Your task to perform on an android device: move an email to a new category in the gmail app Image 0: 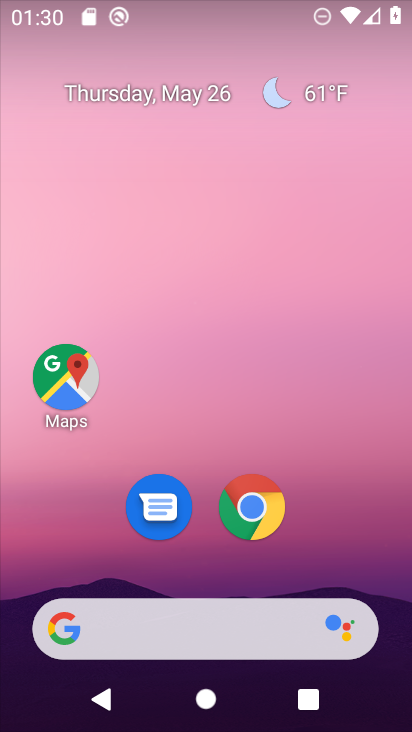
Step 0: drag from (353, 550) to (303, 5)
Your task to perform on an android device: move an email to a new category in the gmail app Image 1: 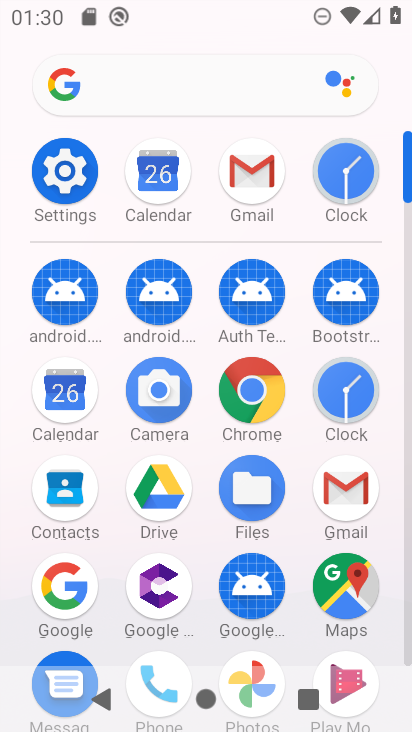
Step 1: click (272, 170)
Your task to perform on an android device: move an email to a new category in the gmail app Image 2: 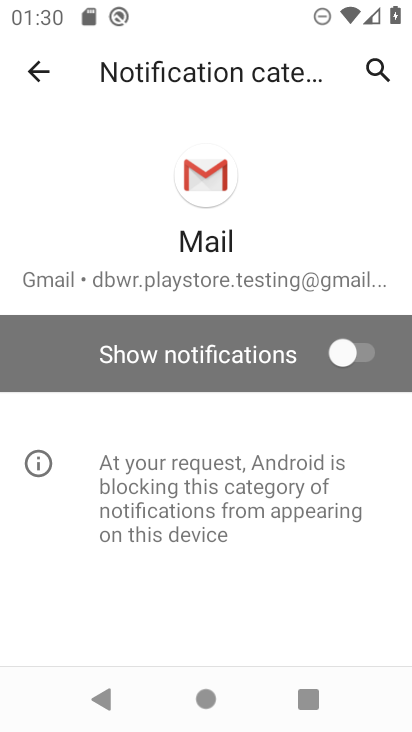
Step 2: click (325, 342)
Your task to perform on an android device: move an email to a new category in the gmail app Image 3: 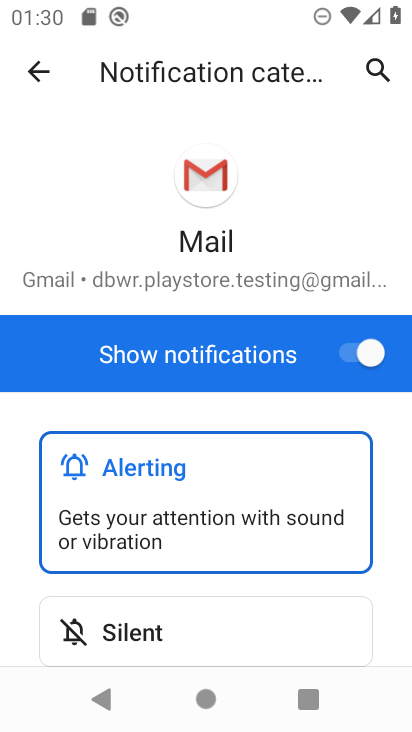
Step 3: task complete